Your task to perform on an android device: Is it going to rain this weekend? Image 0: 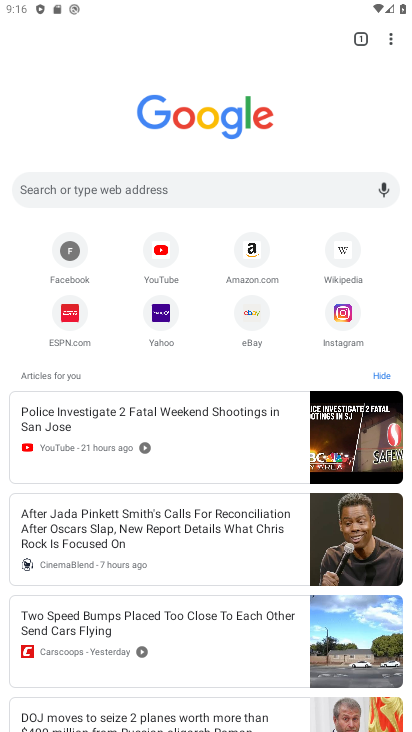
Step 0: press home button
Your task to perform on an android device: Is it going to rain this weekend? Image 1: 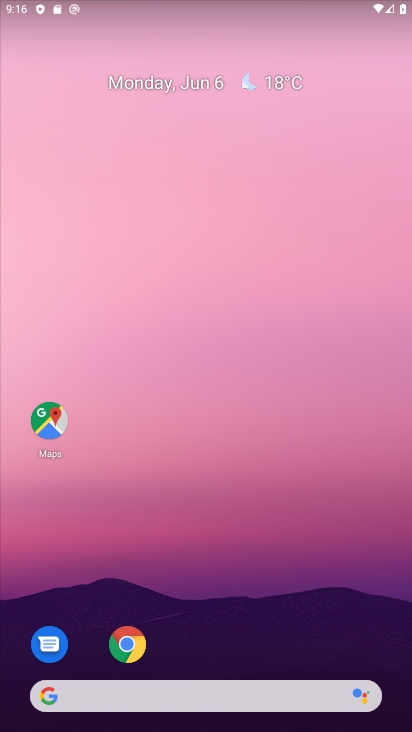
Step 1: drag from (313, 637) to (322, 210)
Your task to perform on an android device: Is it going to rain this weekend? Image 2: 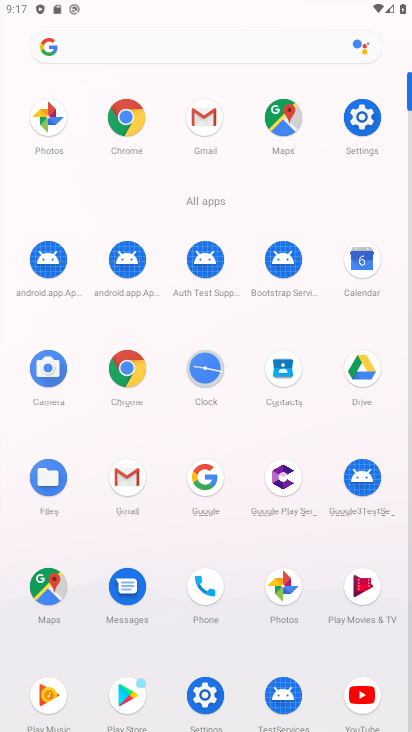
Step 2: click (129, 384)
Your task to perform on an android device: Is it going to rain this weekend? Image 3: 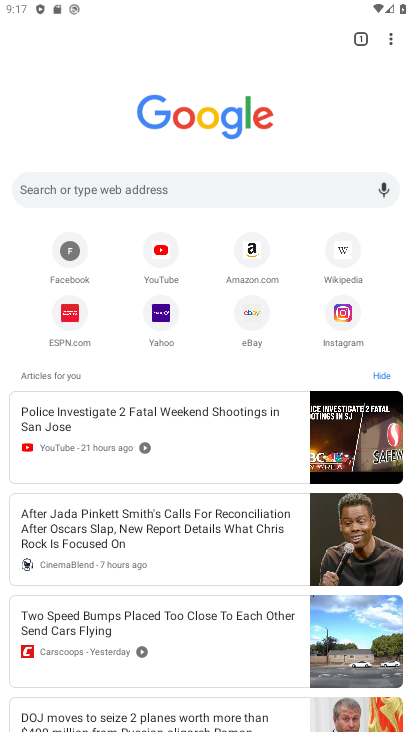
Step 3: click (208, 195)
Your task to perform on an android device: Is it going to rain this weekend? Image 4: 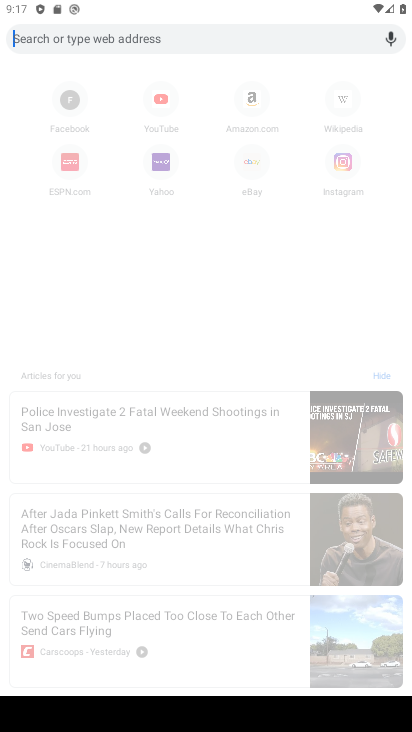
Step 4: click (80, 41)
Your task to perform on an android device: Is it going to rain this weekend? Image 5: 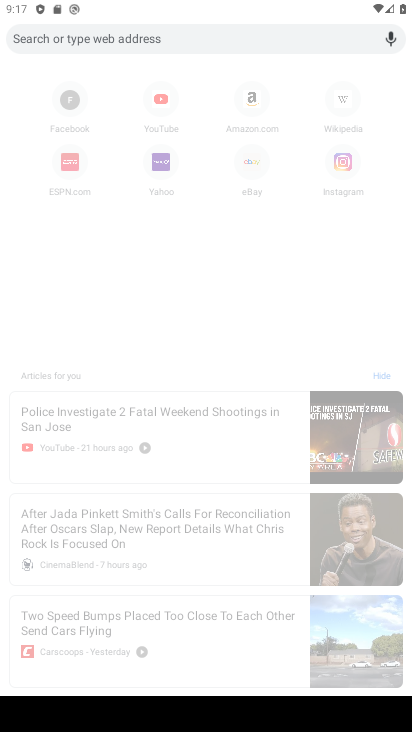
Step 5: type "is it going to rain this weekend "
Your task to perform on an android device: Is it going to rain this weekend? Image 6: 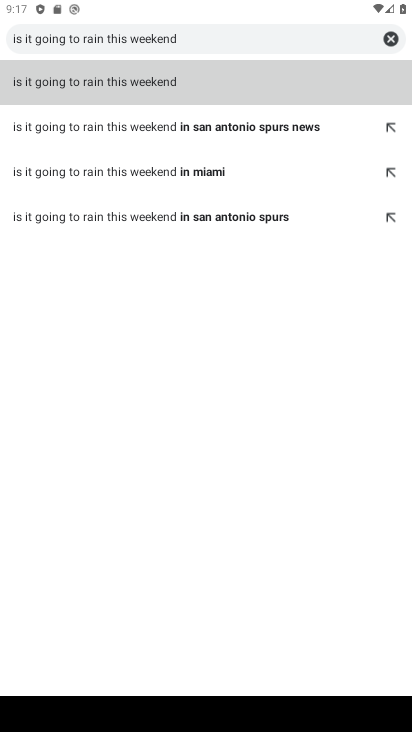
Step 6: click (124, 74)
Your task to perform on an android device: Is it going to rain this weekend? Image 7: 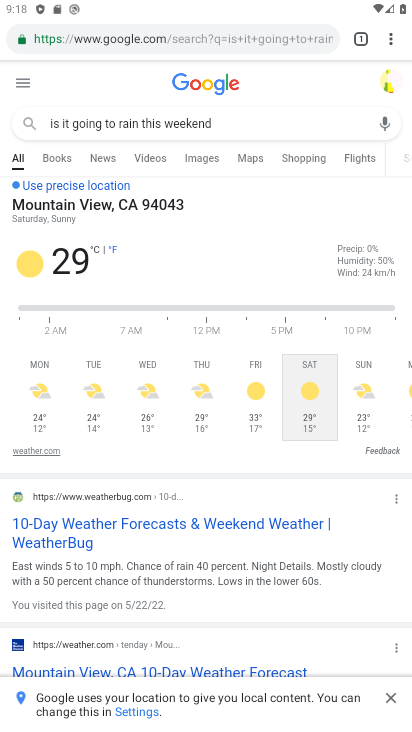
Step 7: task complete